Your task to perform on an android device: turn notification dots off Image 0: 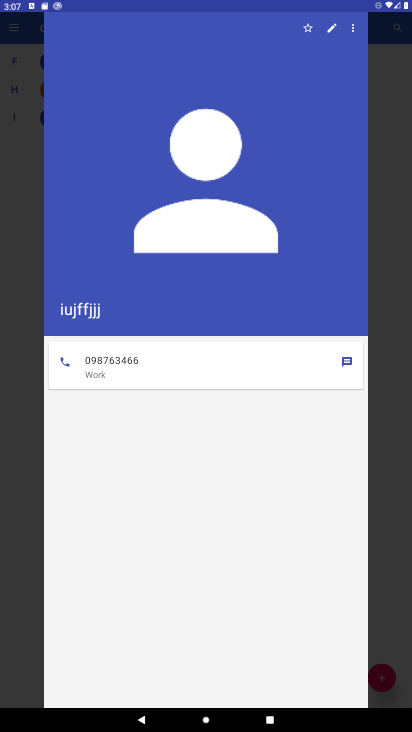
Step 0: press home button
Your task to perform on an android device: turn notification dots off Image 1: 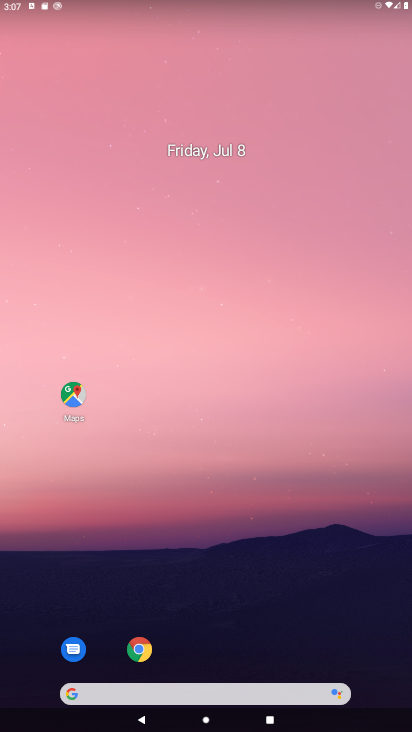
Step 1: drag from (355, 656) to (332, 52)
Your task to perform on an android device: turn notification dots off Image 2: 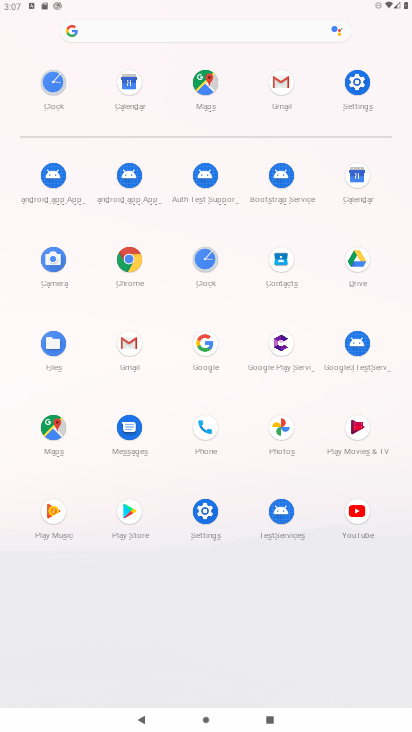
Step 2: click (204, 512)
Your task to perform on an android device: turn notification dots off Image 3: 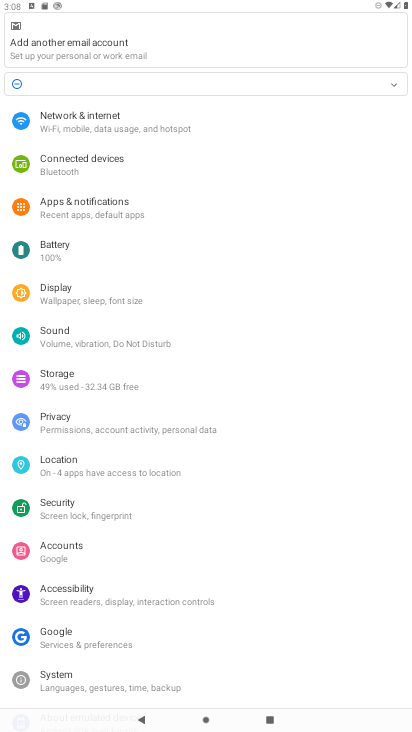
Step 3: click (77, 205)
Your task to perform on an android device: turn notification dots off Image 4: 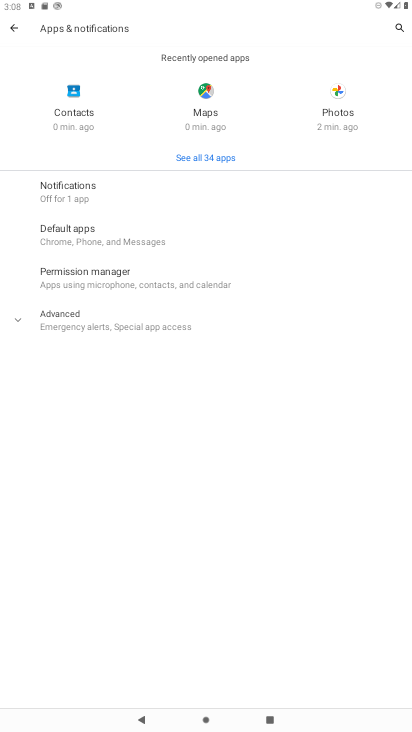
Step 4: click (68, 191)
Your task to perform on an android device: turn notification dots off Image 5: 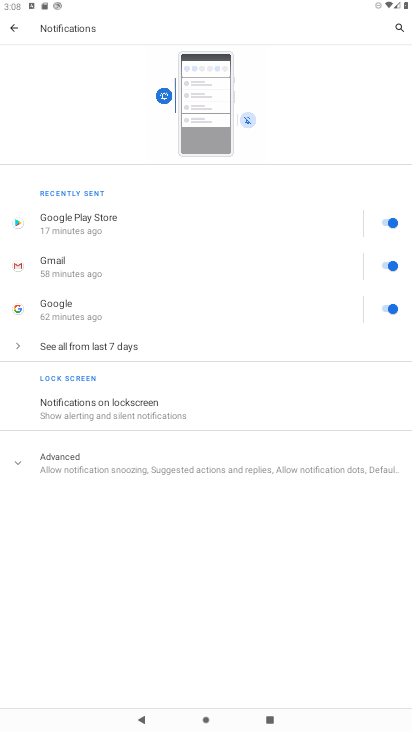
Step 5: click (46, 467)
Your task to perform on an android device: turn notification dots off Image 6: 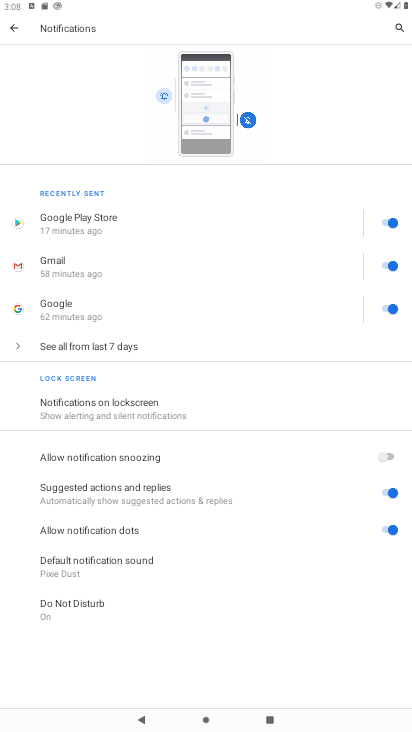
Step 6: click (385, 526)
Your task to perform on an android device: turn notification dots off Image 7: 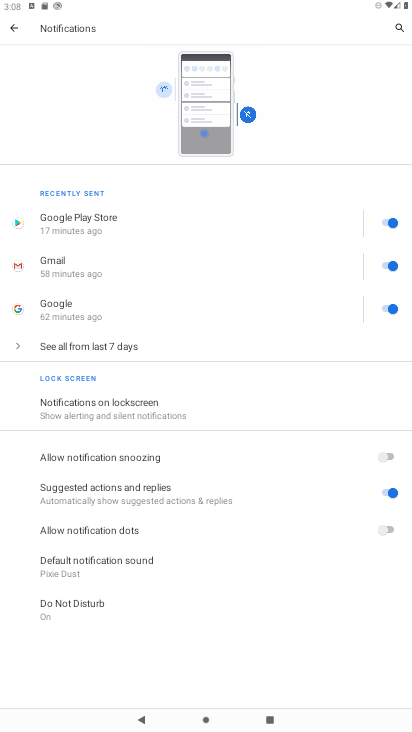
Step 7: task complete